Your task to perform on an android device: Clear the cart on amazon. Search for "lg ultragear" on amazon, select the first entry, and add it to the cart. Image 0: 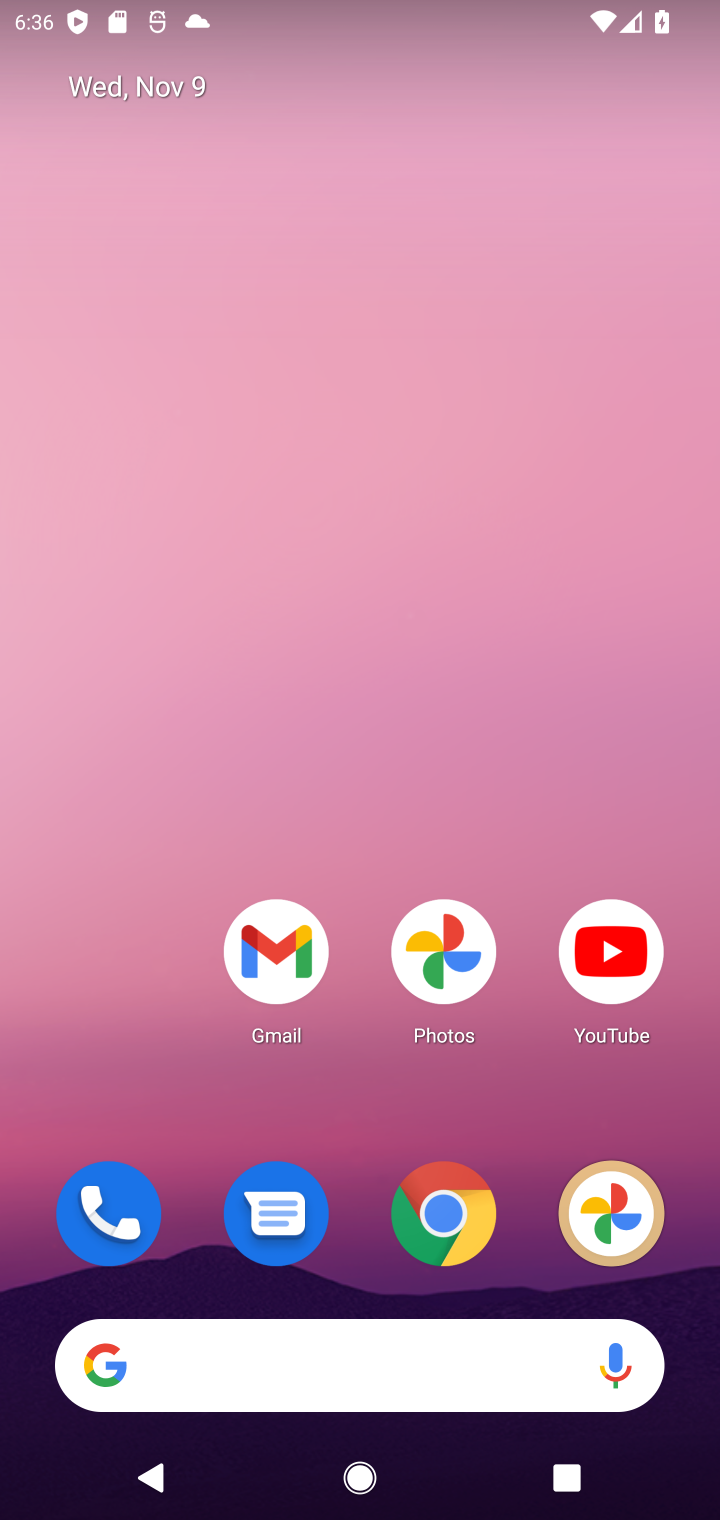
Step 0: click (470, 1211)
Your task to perform on an android device: Clear the cart on amazon. Search for "lg ultragear" on amazon, select the first entry, and add it to the cart. Image 1: 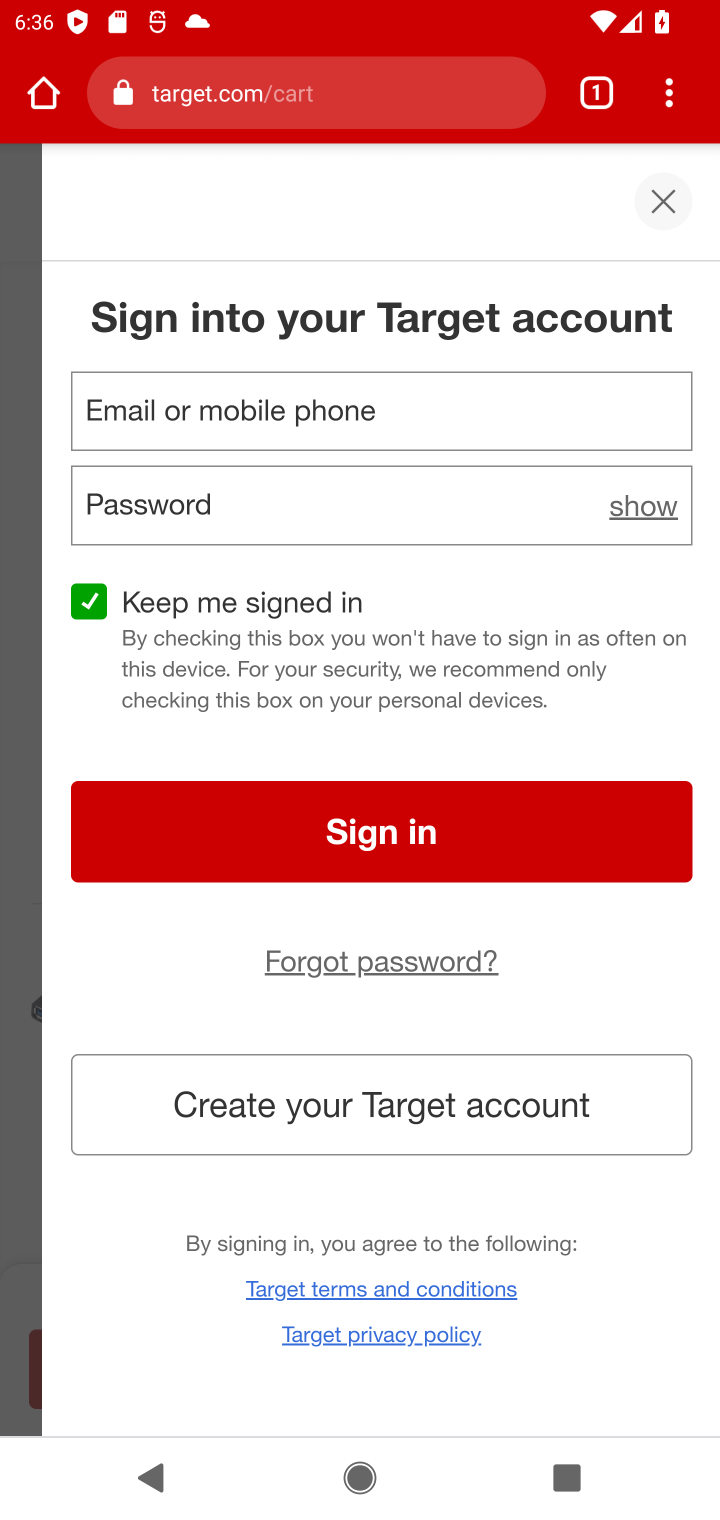
Step 1: click (230, 87)
Your task to perform on an android device: Clear the cart on amazon. Search for "lg ultragear" on amazon, select the first entry, and add it to the cart. Image 2: 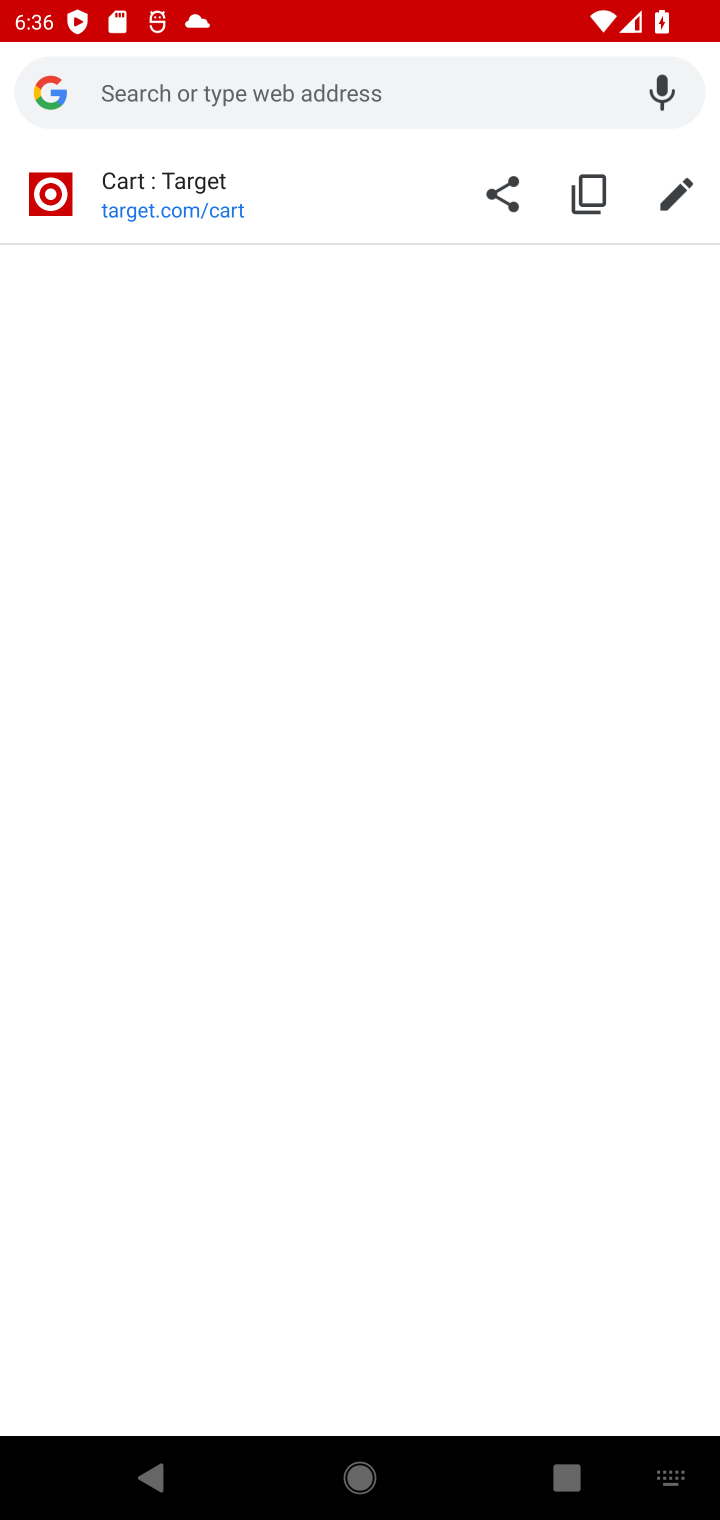
Step 2: type "amazon"
Your task to perform on an android device: Clear the cart on amazon. Search for "lg ultragear" on amazon, select the first entry, and add it to the cart. Image 3: 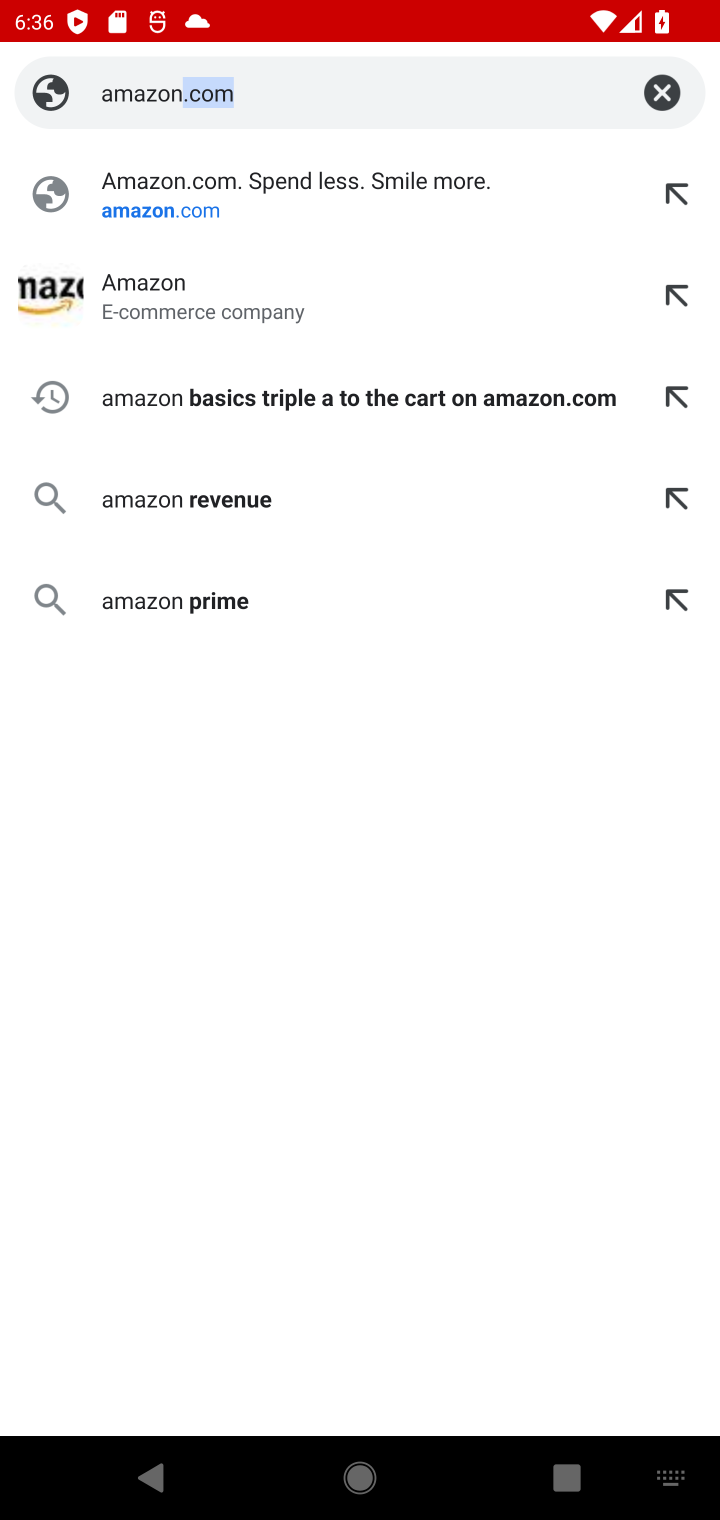
Step 3: click (95, 265)
Your task to perform on an android device: Clear the cart on amazon. Search for "lg ultragear" on amazon, select the first entry, and add it to the cart. Image 4: 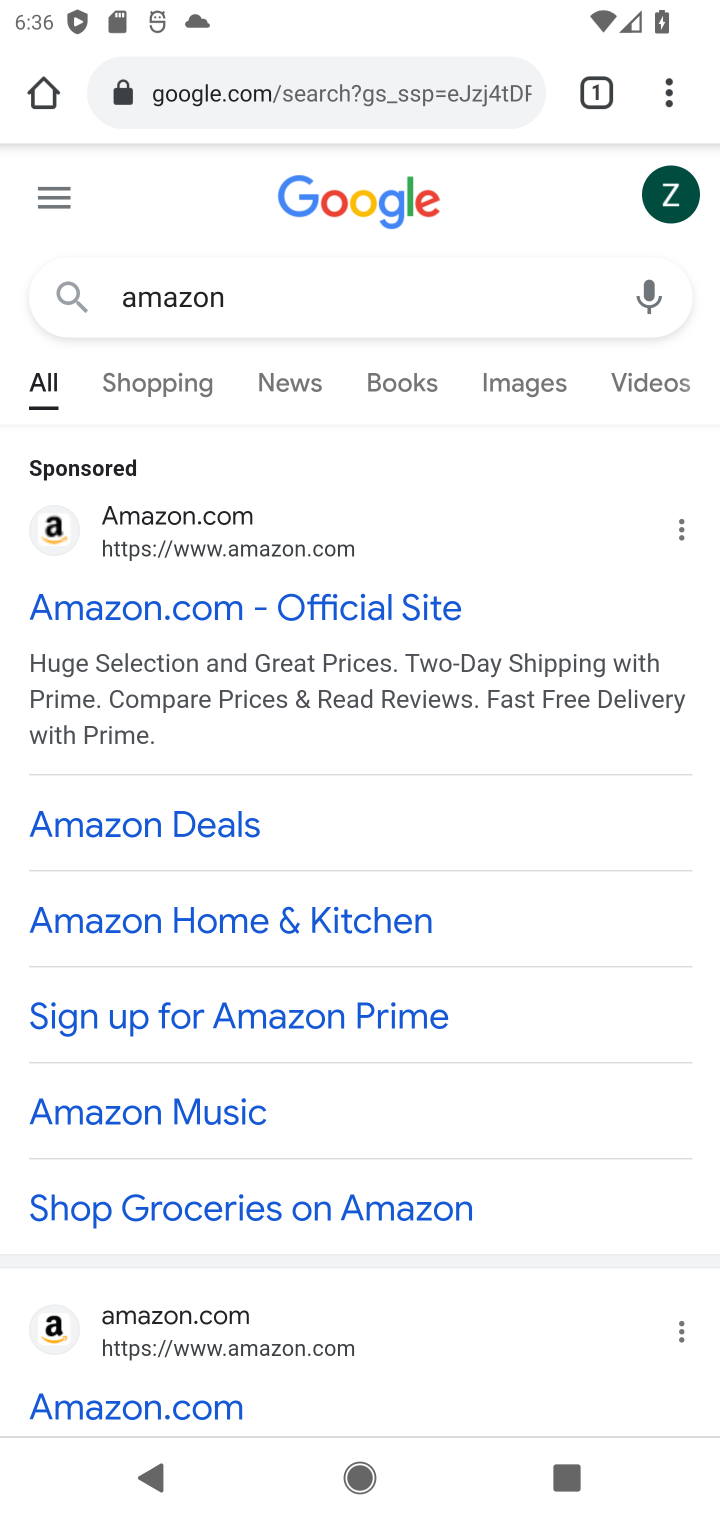
Step 4: click (87, 589)
Your task to perform on an android device: Clear the cart on amazon. Search for "lg ultragear" on amazon, select the first entry, and add it to the cart. Image 5: 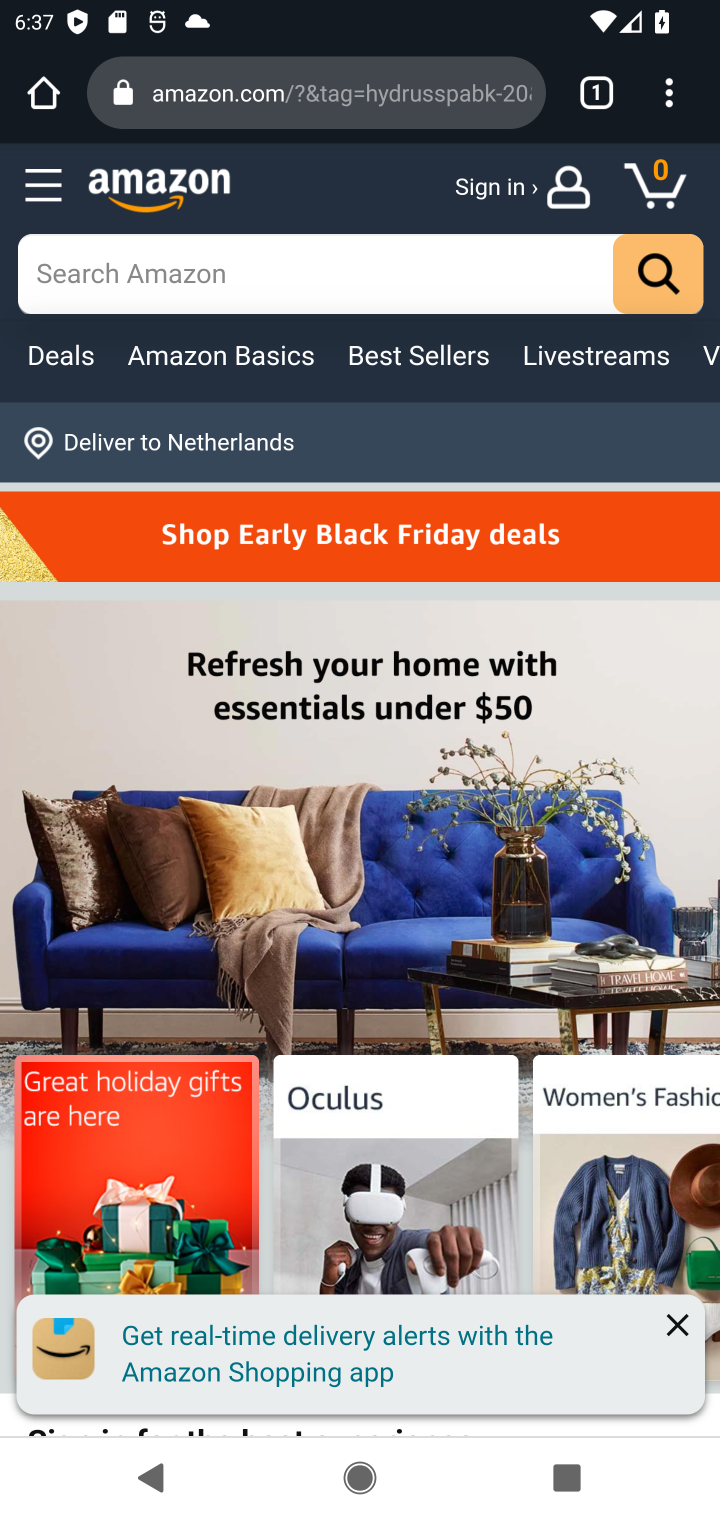
Step 5: click (334, 271)
Your task to perform on an android device: Clear the cart on amazon. Search for "lg ultragear" on amazon, select the first entry, and add it to the cart. Image 6: 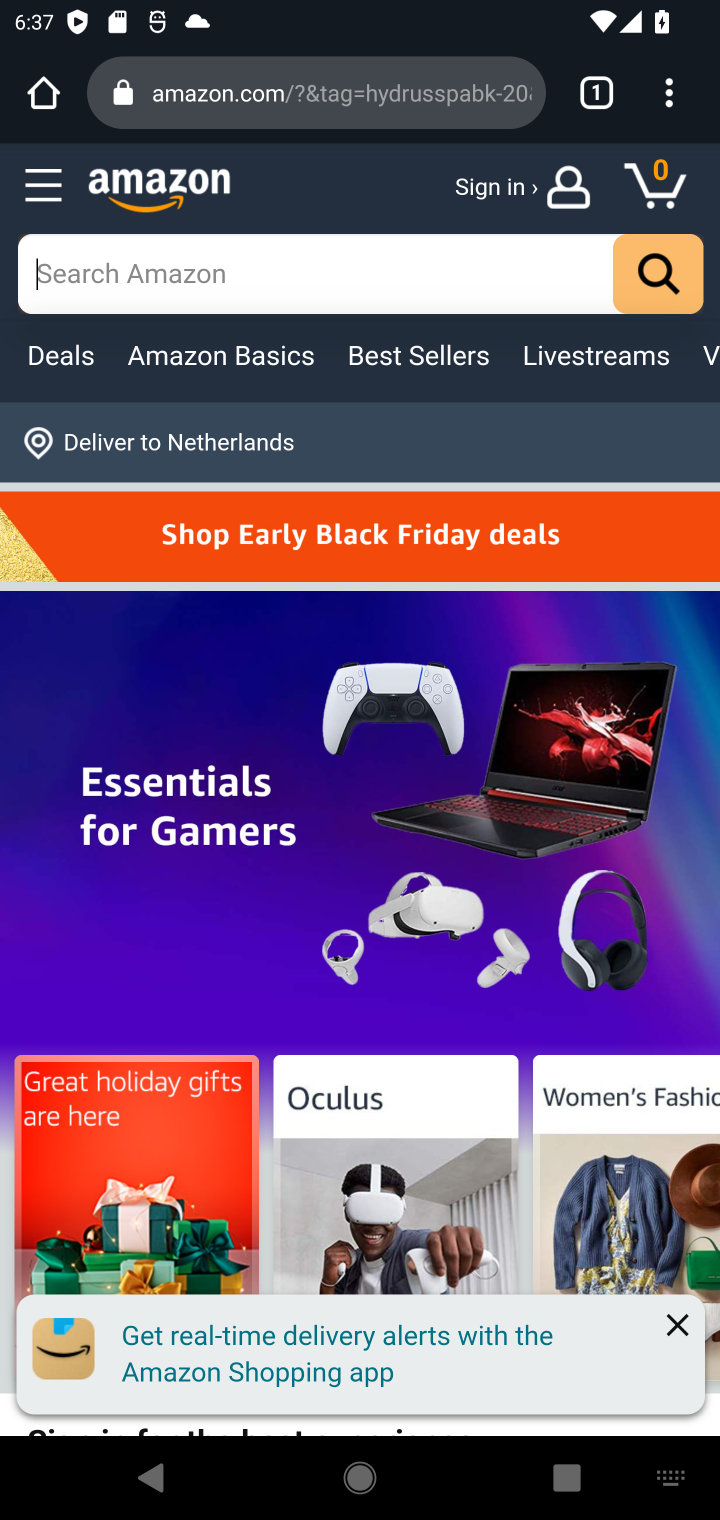
Step 6: type "lg ultragear "
Your task to perform on an android device: Clear the cart on amazon. Search for "lg ultragear" on amazon, select the first entry, and add it to the cart. Image 7: 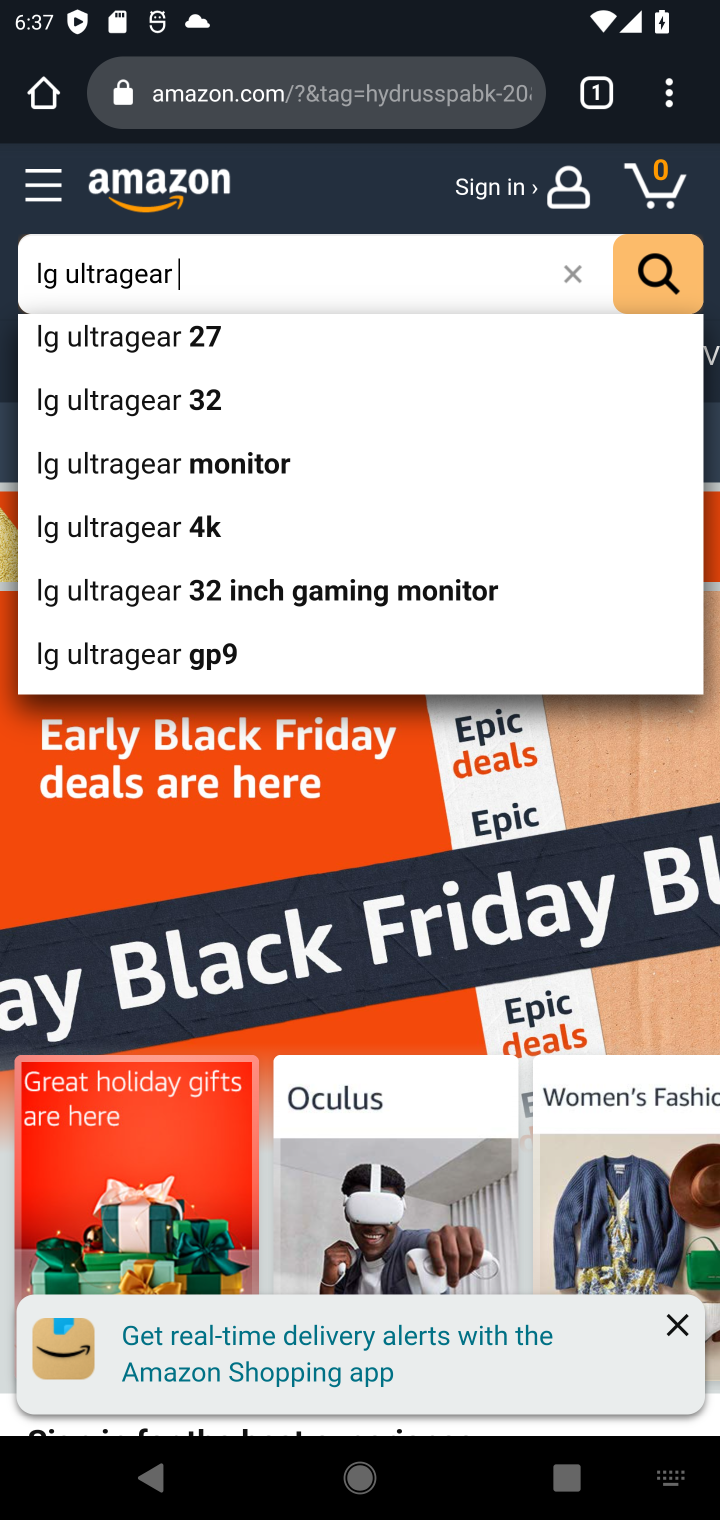
Step 7: click (103, 330)
Your task to perform on an android device: Clear the cart on amazon. Search for "lg ultragear" on amazon, select the first entry, and add it to the cart. Image 8: 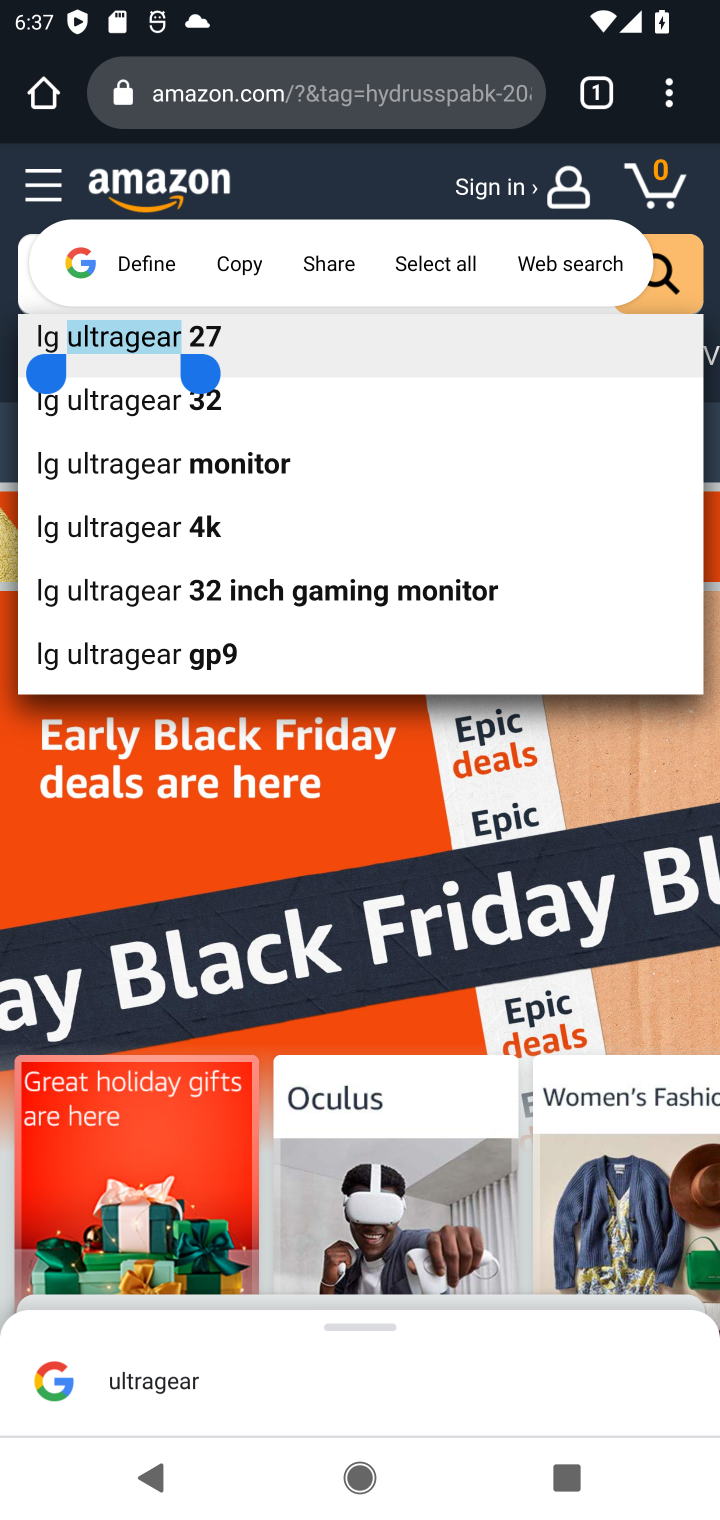
Step 8: click (73, 408)
Your task to perform on an android device: Clear the cart on amazon. Search for "lg ultragear" on amazon, select the first entry, and add it to the cart. Image 9: 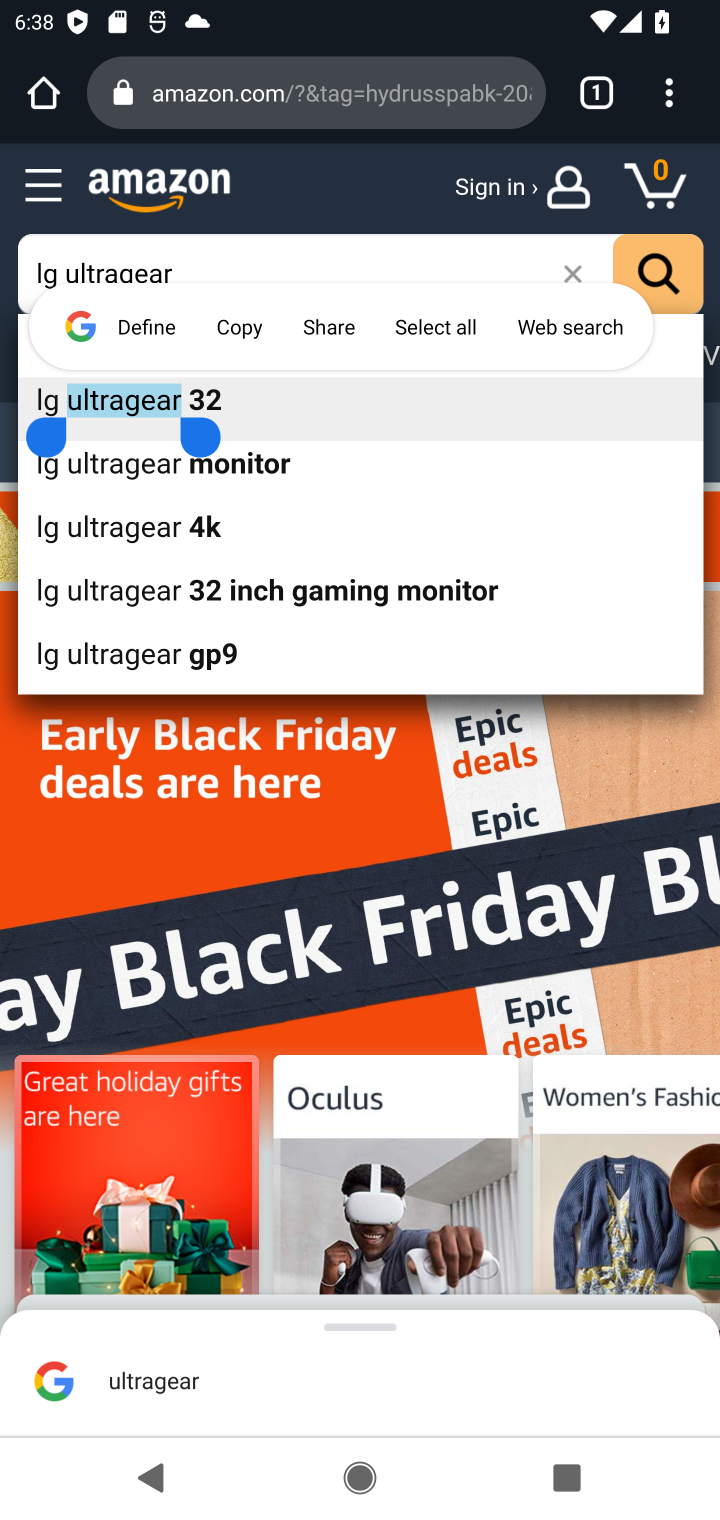
Step 9: click (115, 395)
Your task to perform on an android device: Clear the cart on amazon. Search for "lg ultragear" on amazon, select the first entry, and add it to the cart. Image 10: 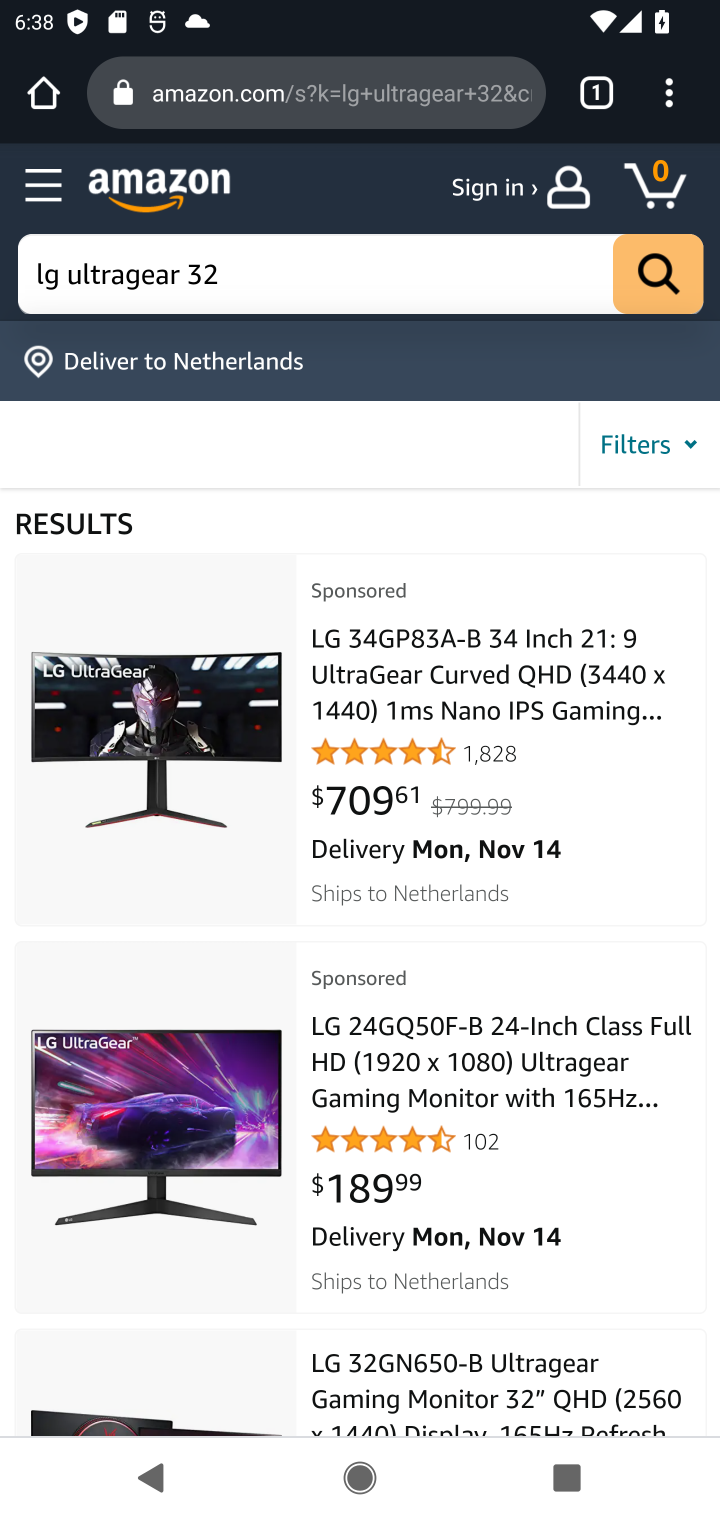
Step 10: drag from (342, 1338) to (451, 721)
Your task to perform on an android device: Clear the cart on amazon. Search for "lg ultragear" on amazon, select the first entry, and add it to the cart. Image 11: 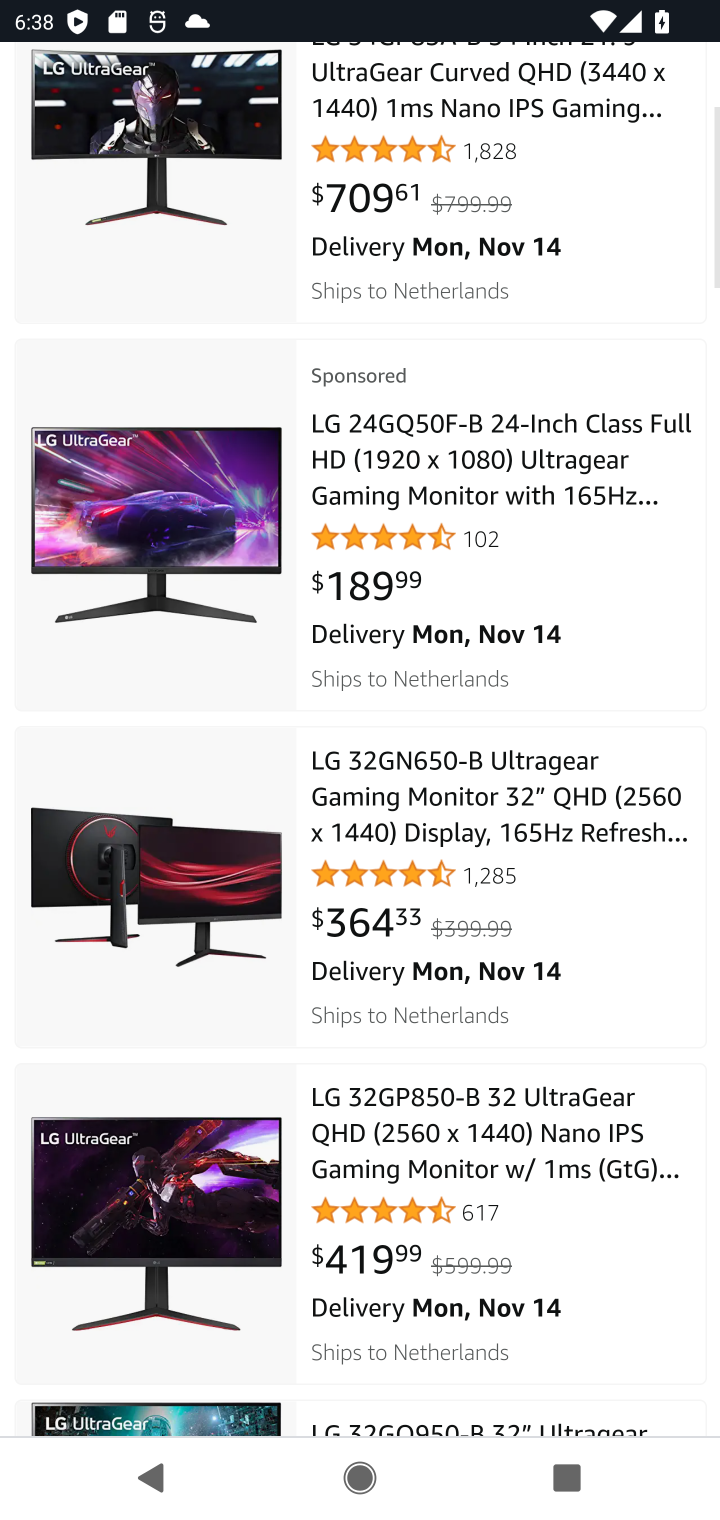
Step 11: click (401, 889)
Your task to perform on an android device: Clear the cart on amazon. Search for "lg ultragear" on amazon, select the first entry, and add it to the cart. Image 12: 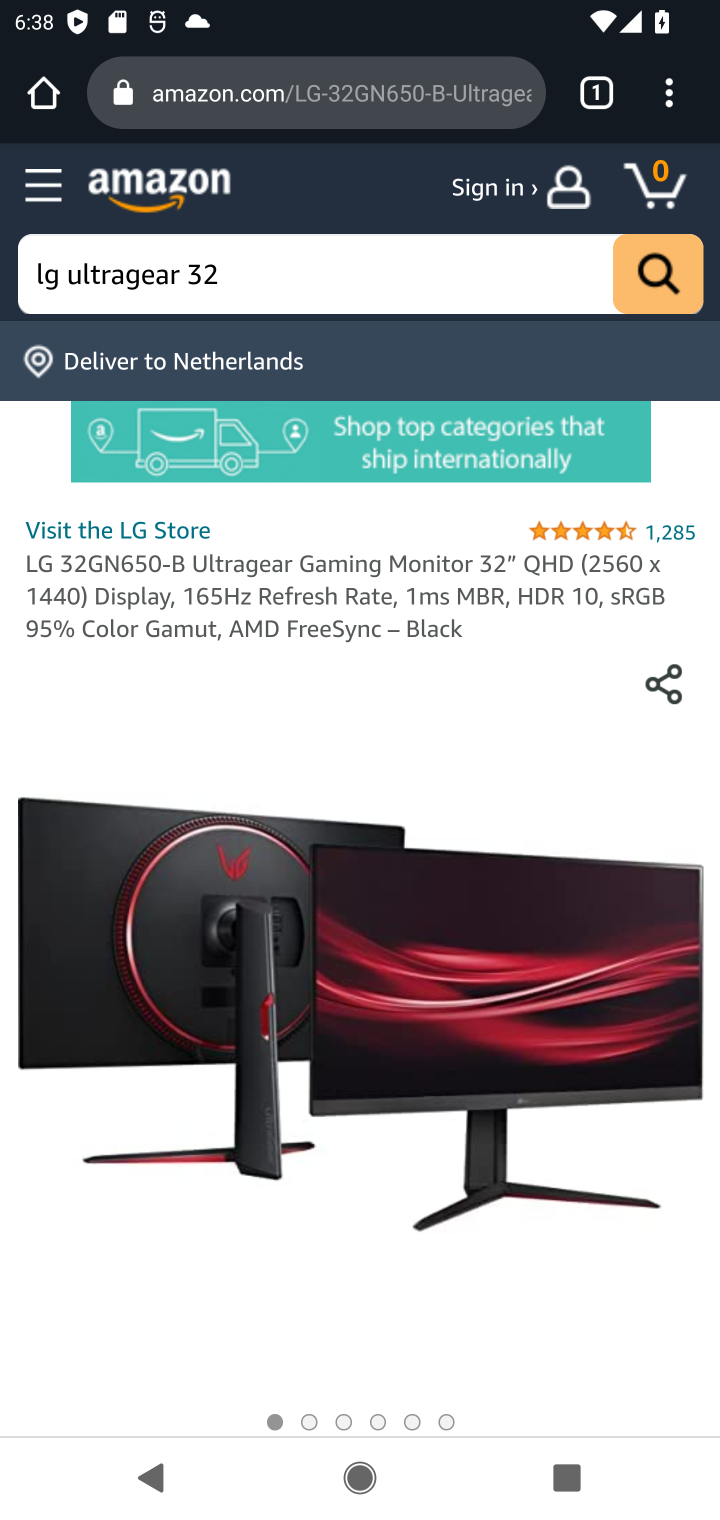
Step 12: drag from (305, 1295) to (365, 485)
Your task to perform on an android device: Clear the cart on amazon. Search for "lg ultragear" on amazon, select the first entry, and add it to the cart. Image 13: 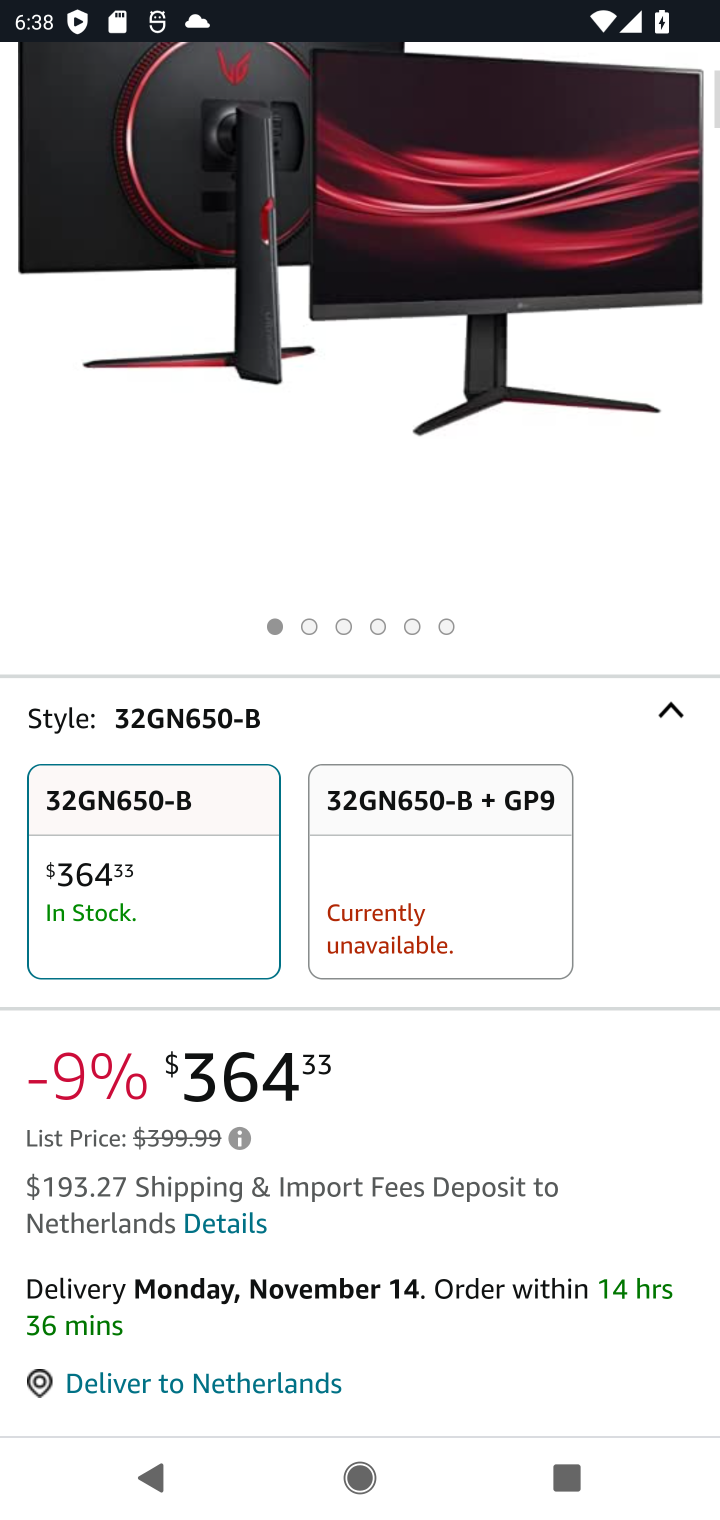
Step 13: drag from (359, 1260) to (339, 323)
Your task to perform on an android device: Clear the cart on amazon. Search for "lg ultragear" on amazon, select the first entry, and add it to the cart. Image 14: 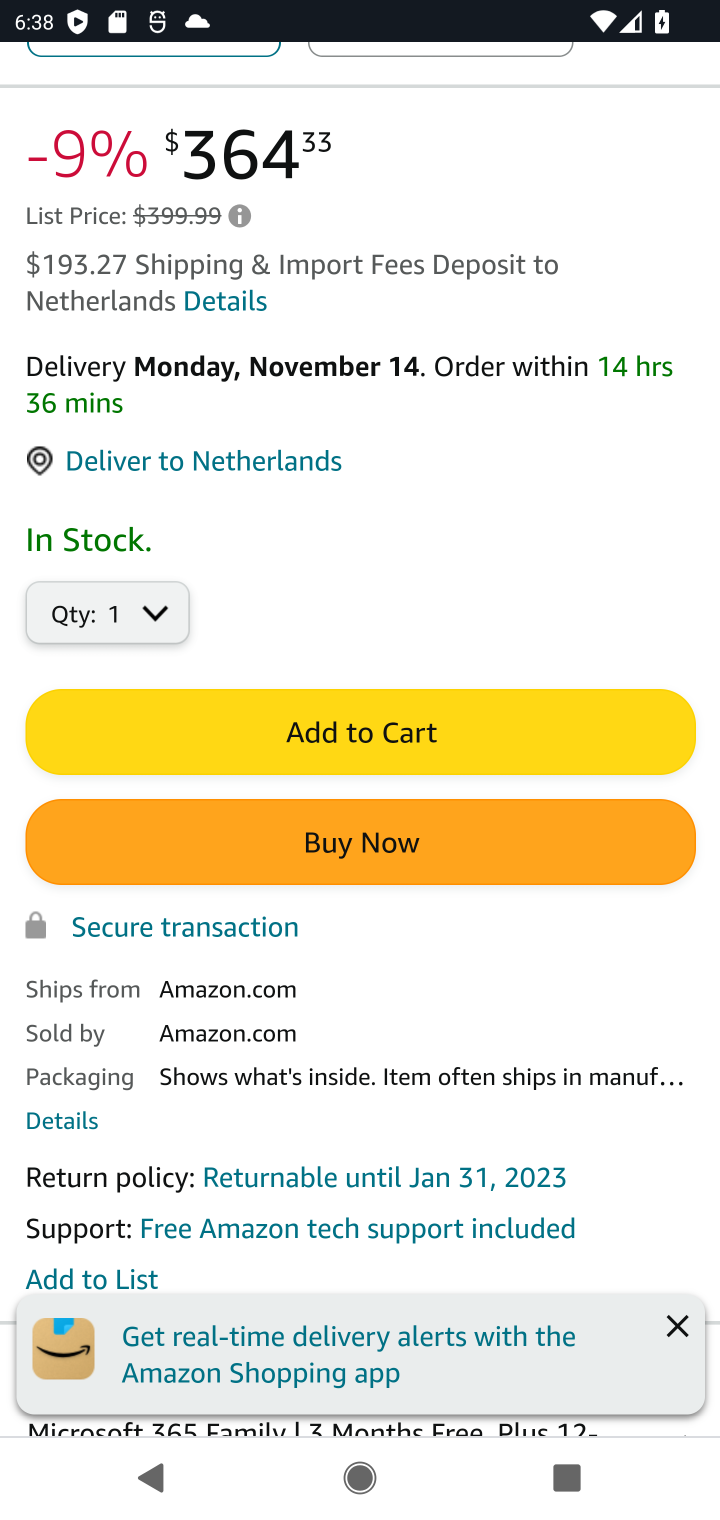
Step 14: click (397, 723)
Your task to perform on an android device: Clear the cart on amazon. Search for "lg ultragear" on amazon, select the first entry, and add it to the cart. Image 15: 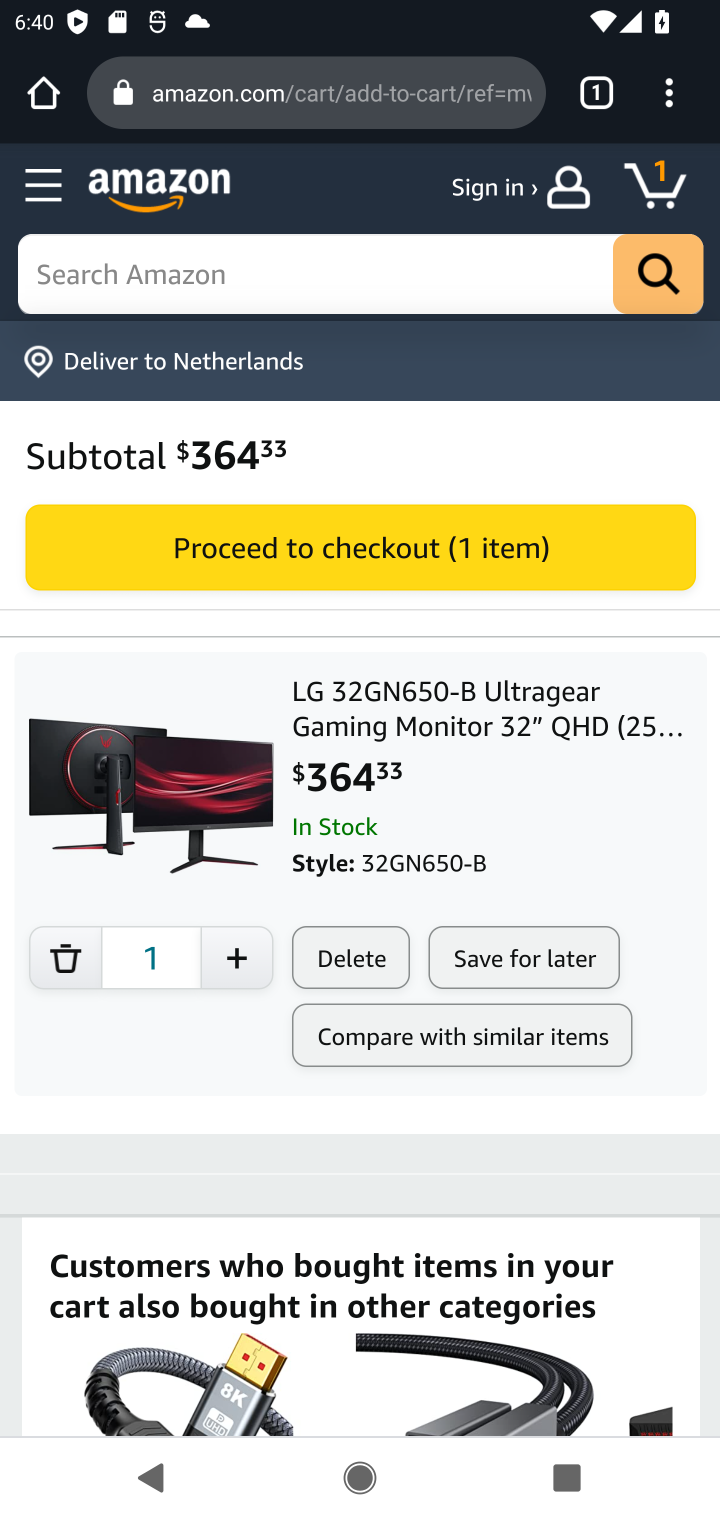
Step 15: task complete